Your task to perform on an android device: allow cookies in the chrome app Image 0: 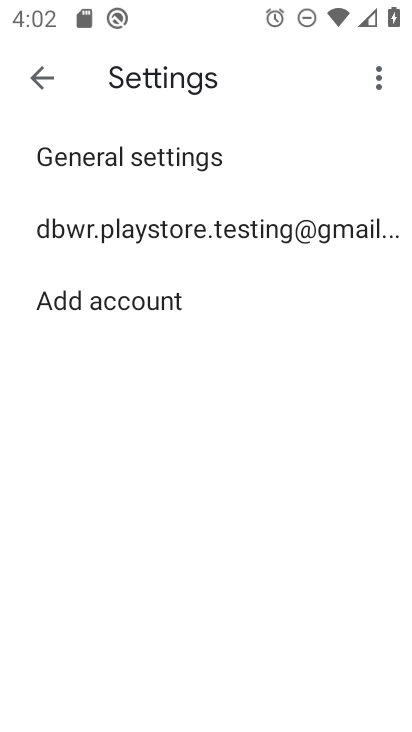
Step 0: press home button
Your task to perform on an android device: allow cookies in the chrome app Image 1: 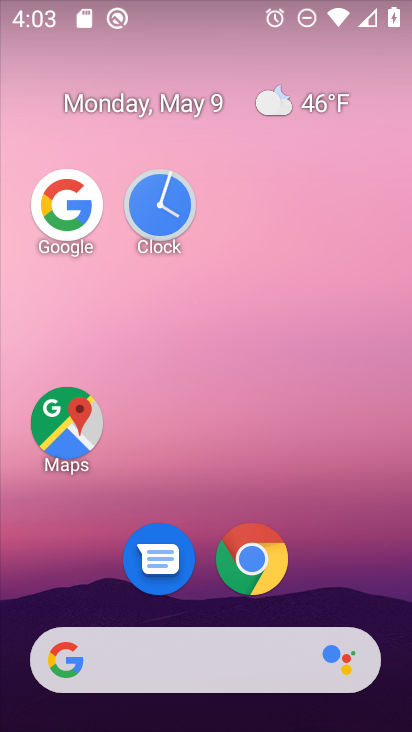
Step 1: click (277, 551)
Your task to perform on an android device: allow cookies in the chrome app Image 2: 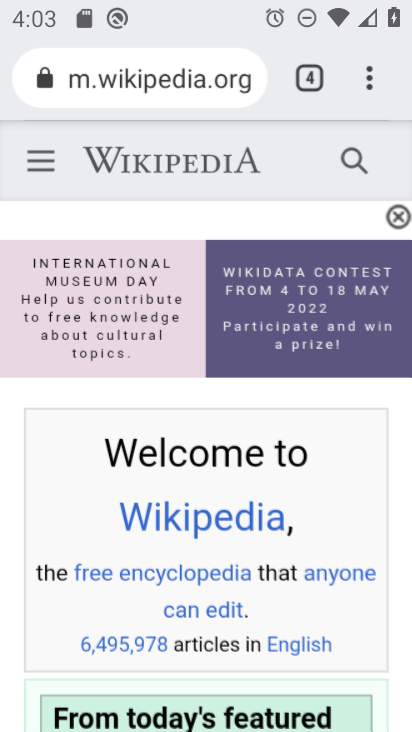
Step 2: click (367, 70)
Your task to perform on an android device: allow cookies in the chrome app Image 3: 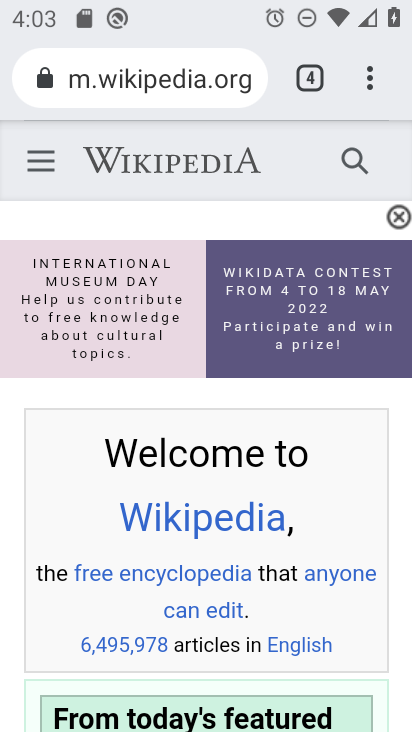
Step 3: click (376, 51)
Your task to perform on an android device: allow cookies in the chrome app Image 4: 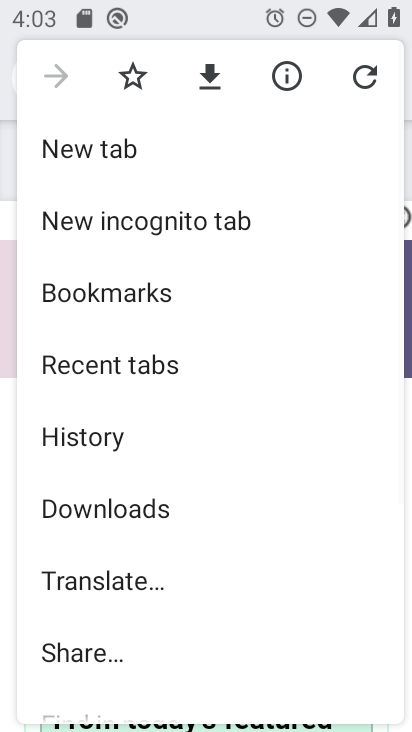
Step 4: drag from (225, 589) to (248, 141)
Your task to perform on an android device: allow cookies in the chrome app Image 5: 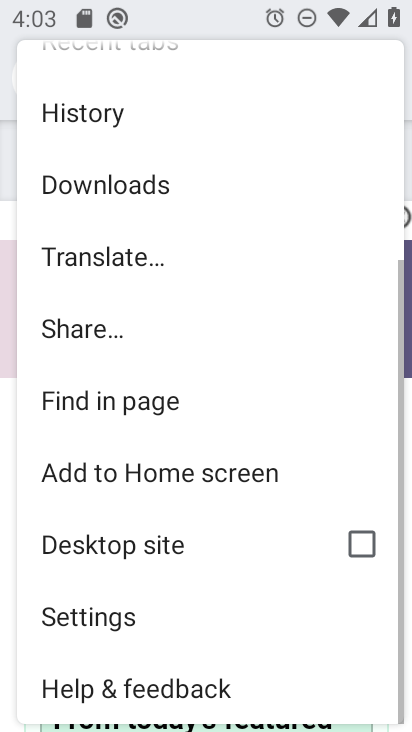
Step 5: click (175, 616)
Your task to perform on an android device: allow cookies in the chrome app Image 6: 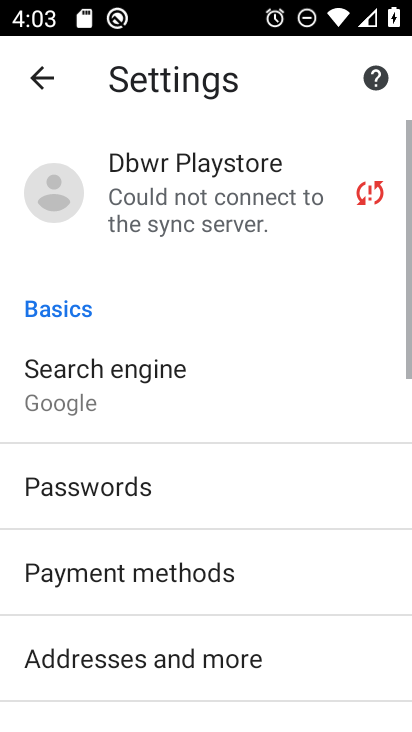
Step 6: drag from (175, 616) to (205, 250)
Your task to perform on an android device: allow cookies in the chrome app Image 7: 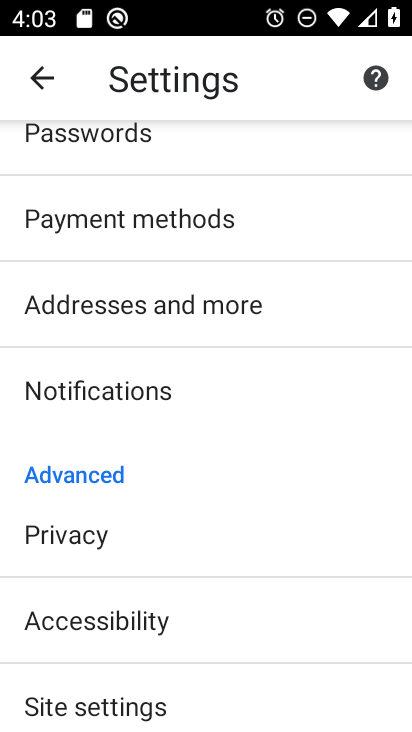
Step 7: drag from (227, 653) to (250, 340)
Your task to perform on an android device: allow cookies in the chrome app Image 8: 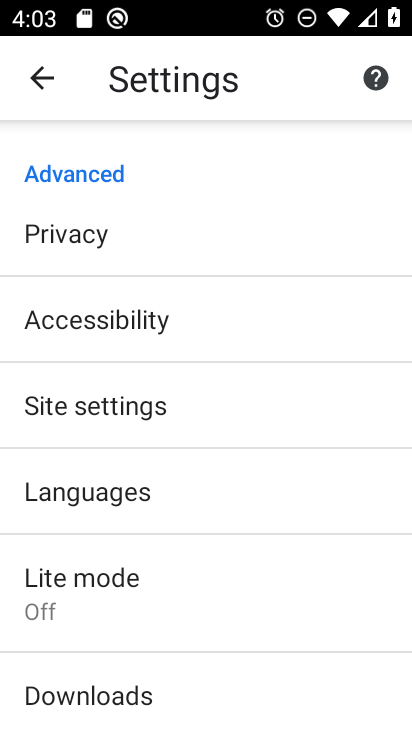
Step 8: click (273, 416)
Your task to perform on an android device: allow cookies in the chrome app Image 9: 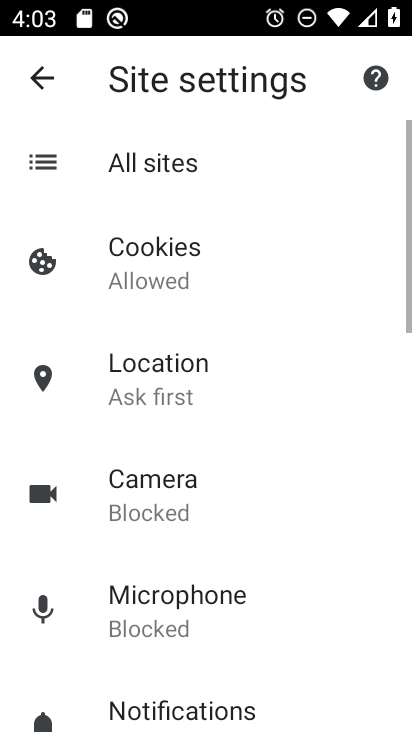
Step 9: click (269, 270)
Your task to perform on an android device: allow cookies in the chrome app Image 10: 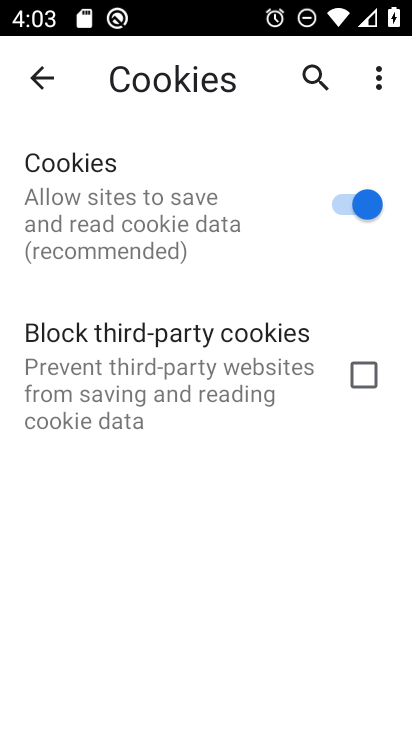
Step 10: task complete